Your task to perform on an android device: change text size in settings app Image 0: 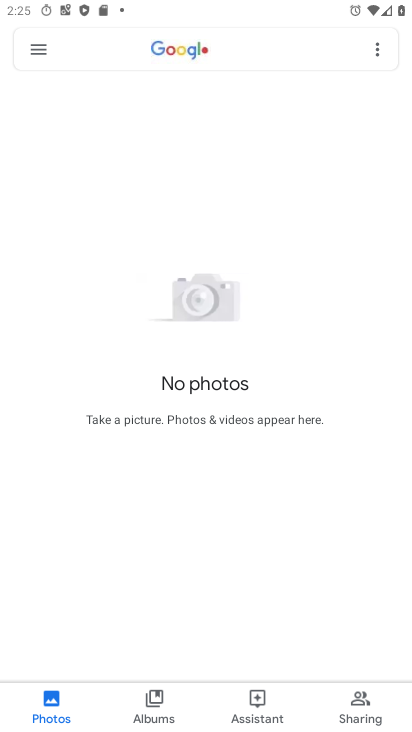
Step 0: press home button
Your task to perform on an android device: change text size in settings app Image 1: 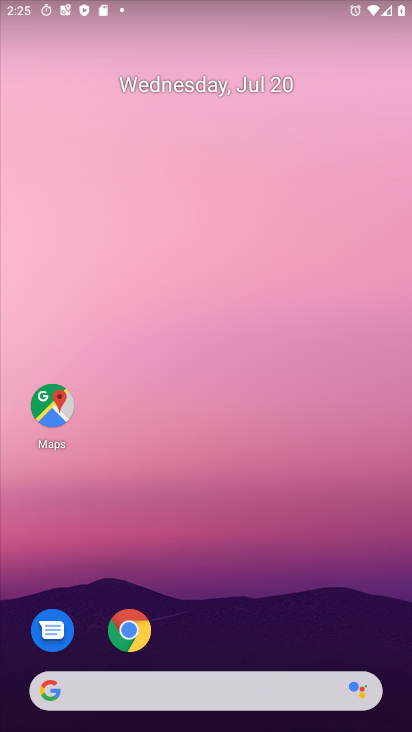
Step 1: drag from (165, 682) to (317, 31)
Your task to perform on an android device: change text size in settings app Image 2: 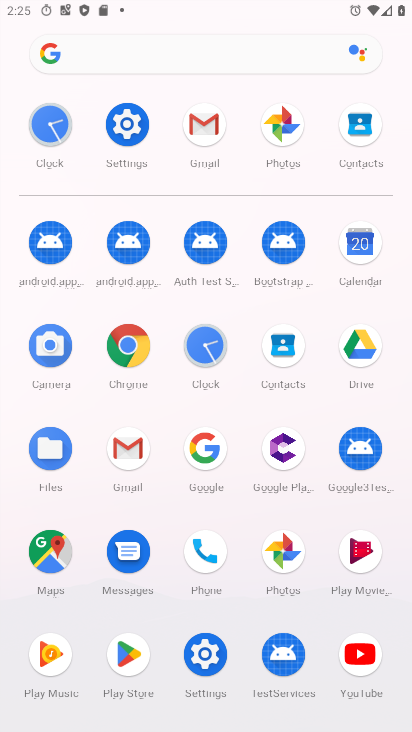
Step 2: click (130, 120)
Your task to perform on an android device: change text size in settings app Image 3: 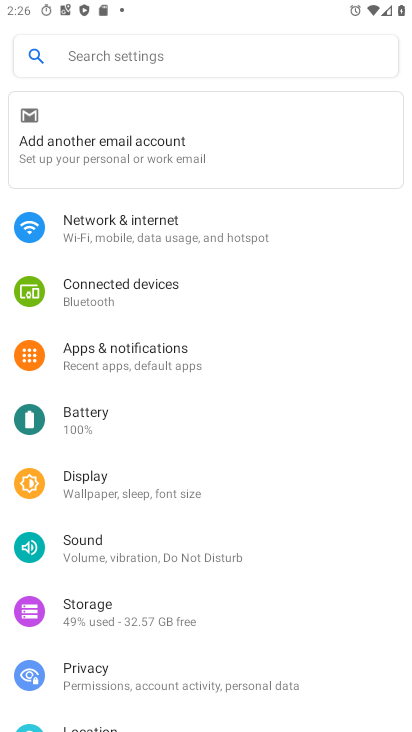
Step 3: click (100, 482)
Your task to perform on an android device: change text size in settings app Image 4: 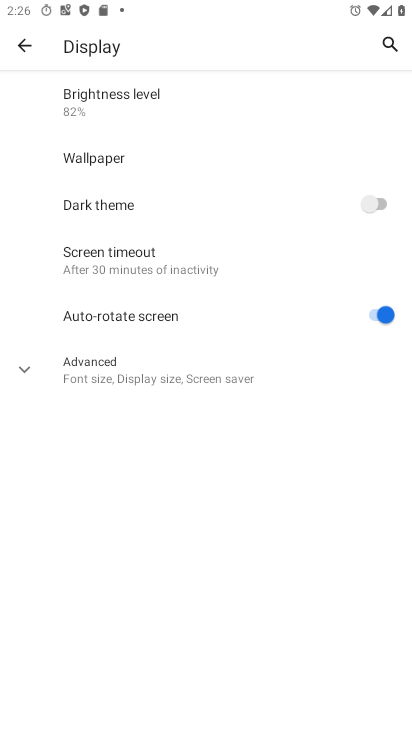
Step 4: click (118, 362)
Your task to perform on an android device: change text size in settings app Image 5: 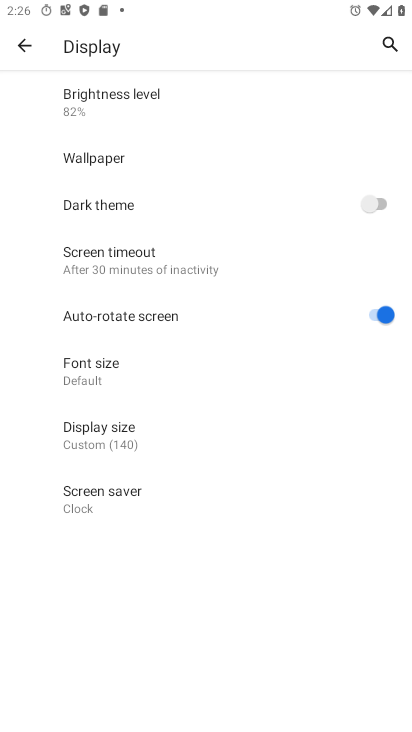
Step 5: click (107, 370)
Your task to perform on an android device: change text size in settings app Image 6: 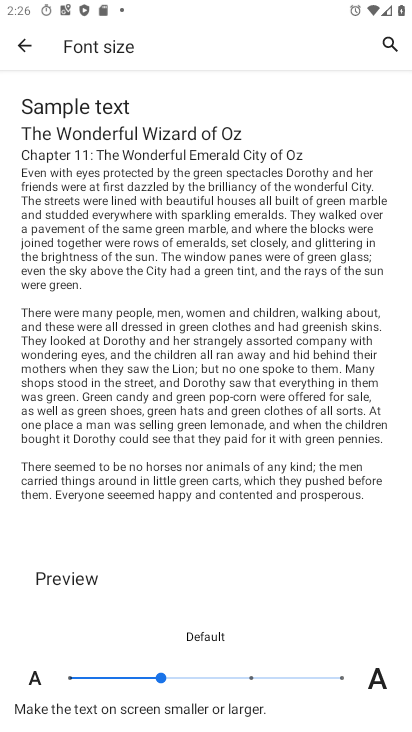
Step 6: click (251, 677)
Your task to perform on an android device: change text size in settings app Image 7: 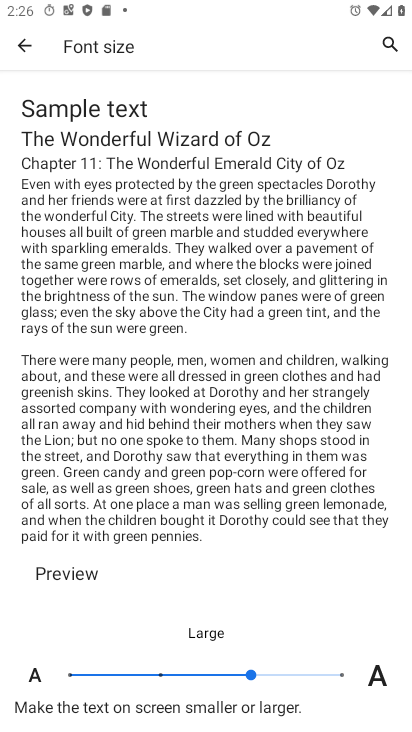
Step 7: task complete